Your task to perform on an android device: toggle javascript in the chrome app Image 0: 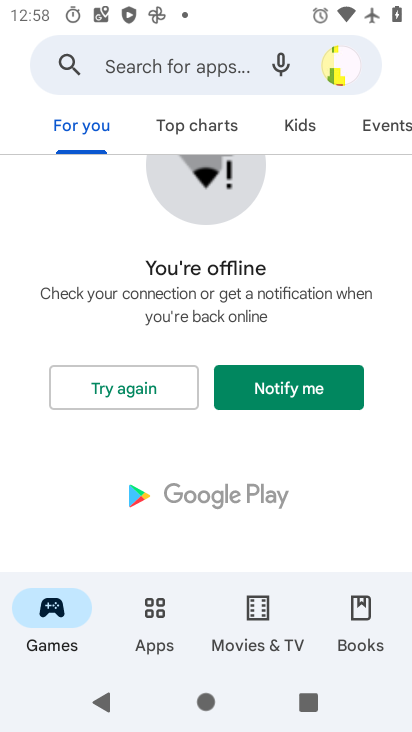
Step 0: press home button
Your task to perform on an android device: toggle javascript in the chrome app Image 1: 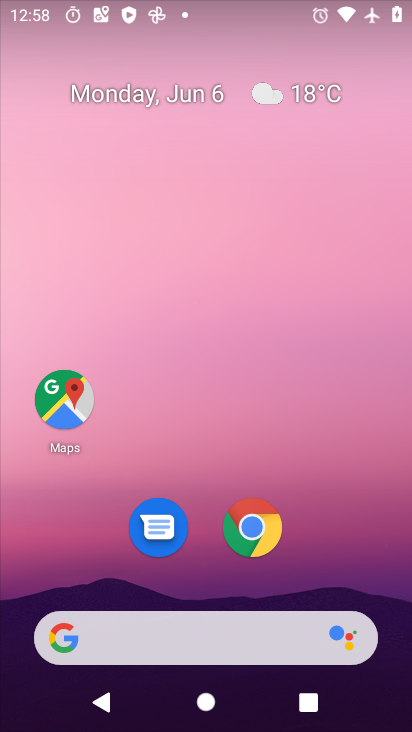
Step 1: click (266, 529)
Your task to perform on an android device: toggle javascript in the chrome app Image 2: 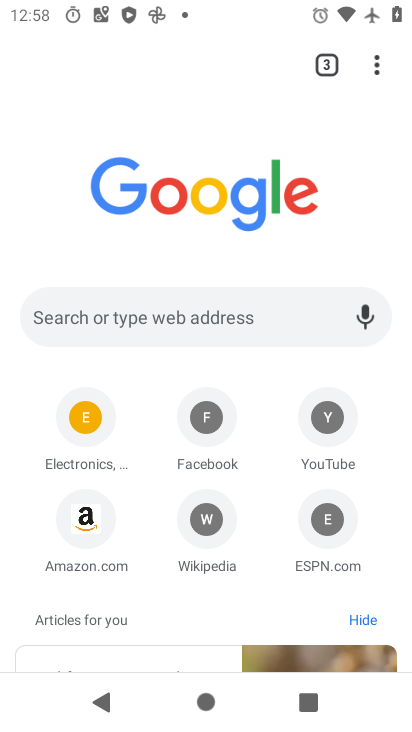
Step 2: click (378, 60)
Your task to perform on an android device: toggle javascript in the chrome app Image 3: 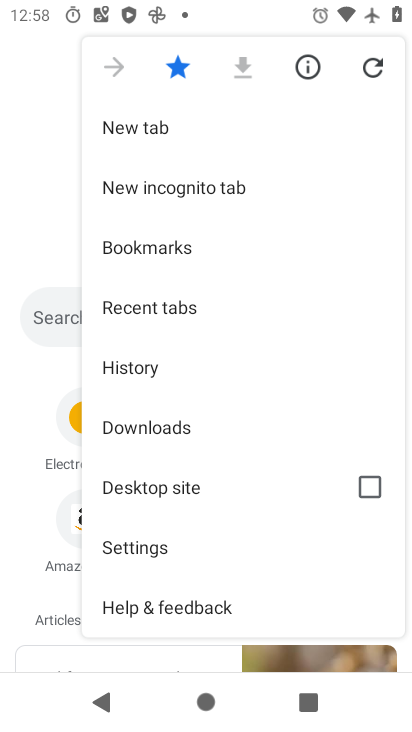
Step 3: click (193, 552)
Your task to perform on an android device: toggle javascript in the chrome app Image 4: 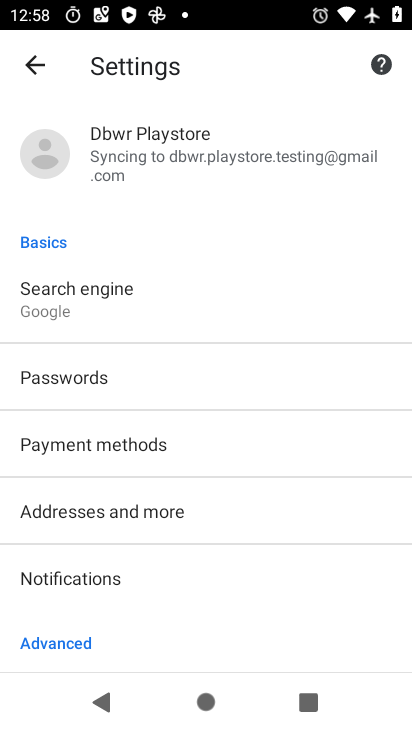
Step 4: drag from (235, 571) to (157, 3)
Your task to perform on an android device: toggle javascript in the chrome app Image 5: 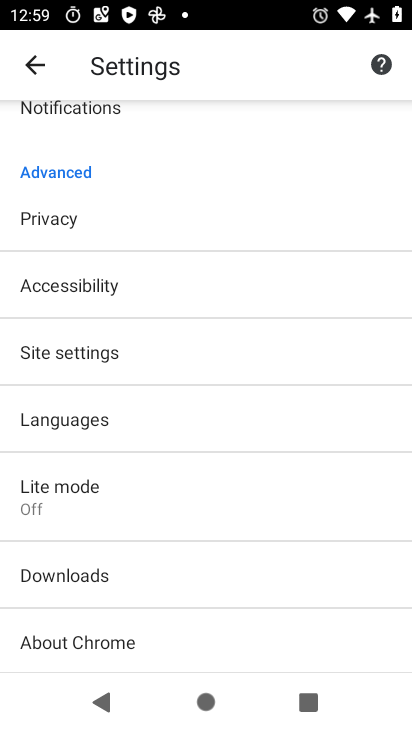
Step 5: click (119, 360)
Your task to perform on an android device: toggle javascript in the chrome app Image 6: 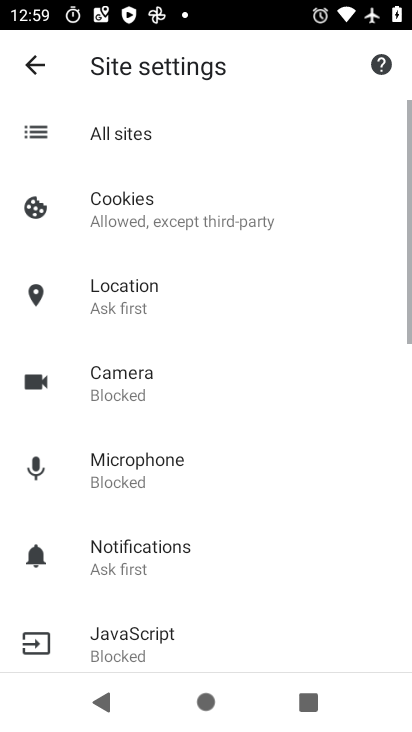
Step 6: click (182, 632)
Your task to perform on an android device: toggle javascript in the chrome app Image 7: 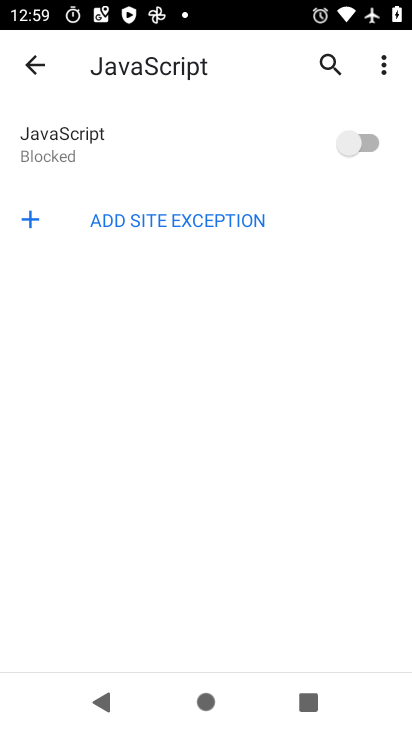
Step 7: click (346, 137)
Your task to perform on an android device: toggle javascript in the chrome app Image 8: 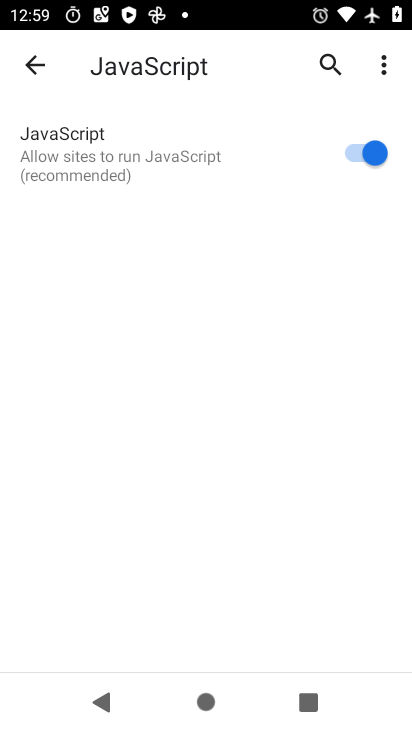
Step 8: task complete